Your task to perform on an android device: add a contact Image 0: 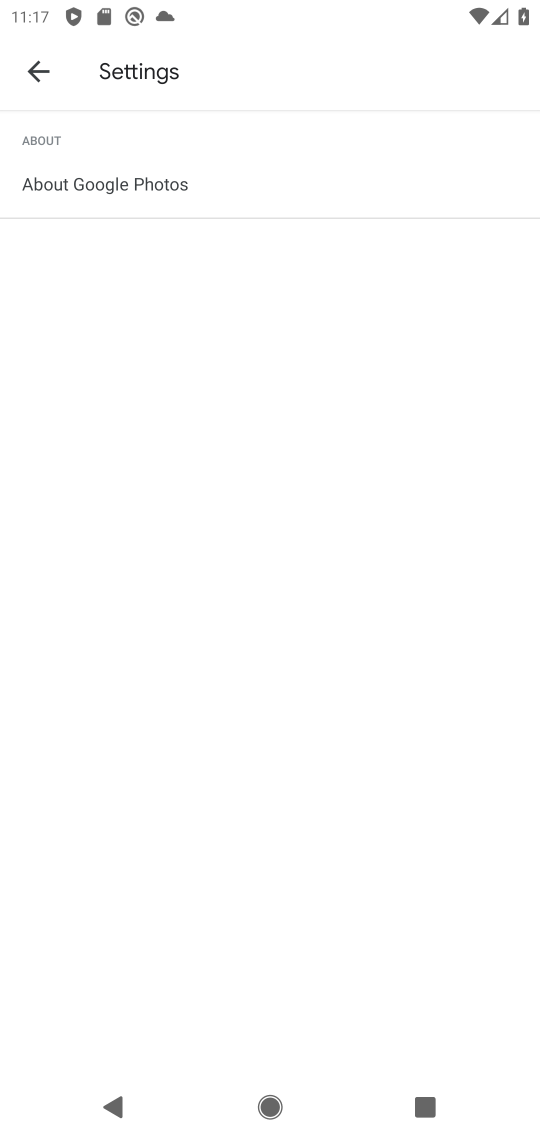
Step 0: press home button
Your task to perform on an android device: add a contact Image 1: 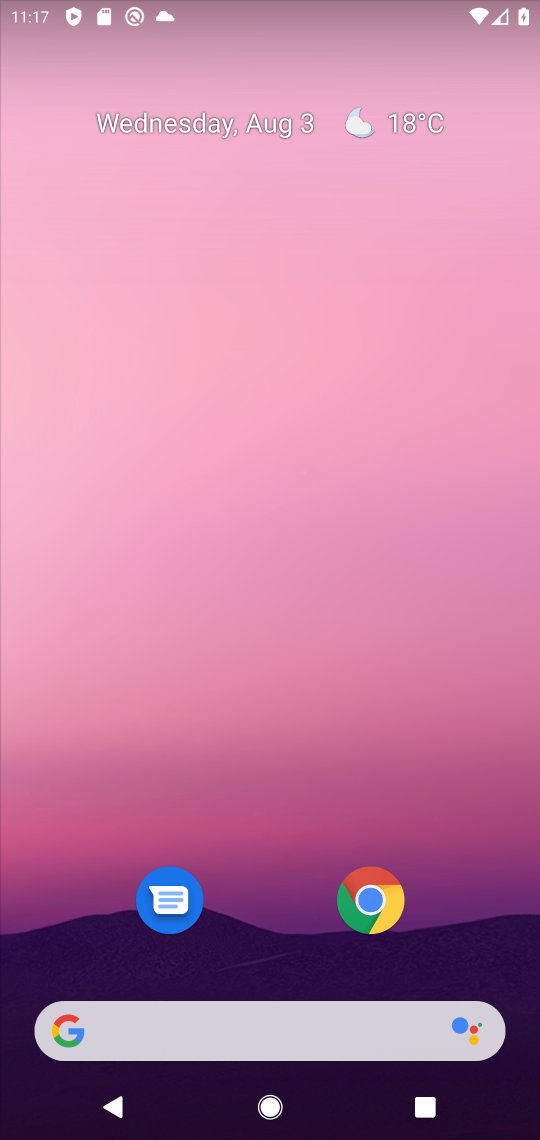
Step 1: drag from (257, 876) to (339, 155)
Your task to perform on an android device: add a contact Image 2: 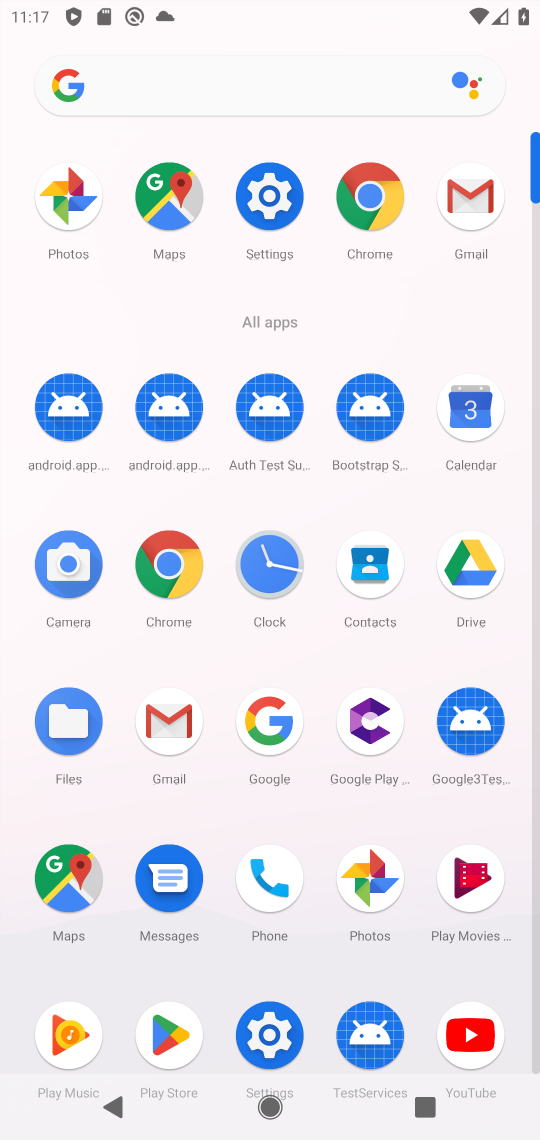
Step 2: click (368, 573)
Your task to perform on an android device: add a contact Image 3: 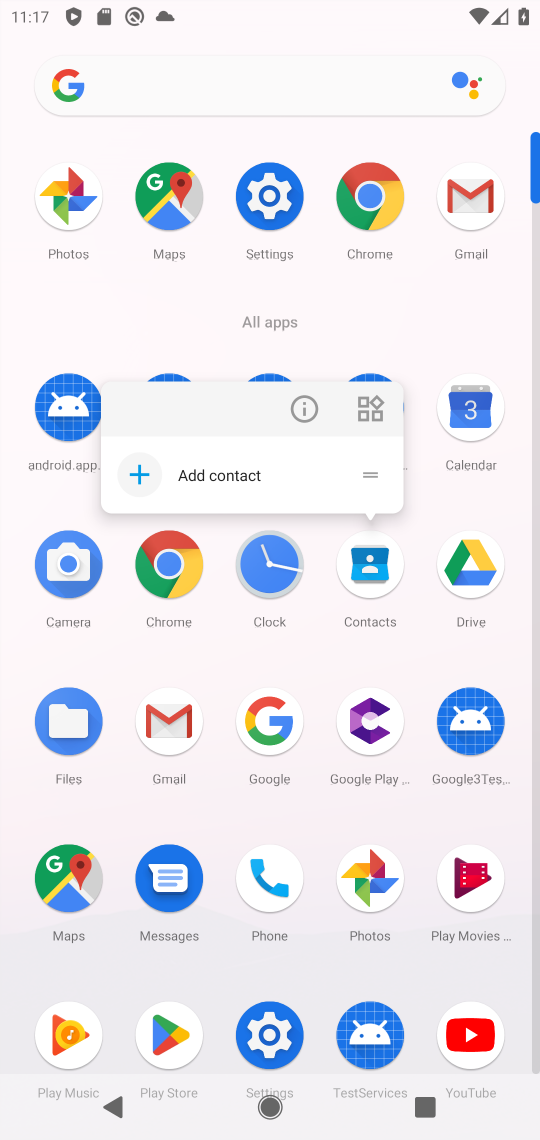
Step 3: click (138, 472)
Your task to perform on an android device: add a contact Image 4: 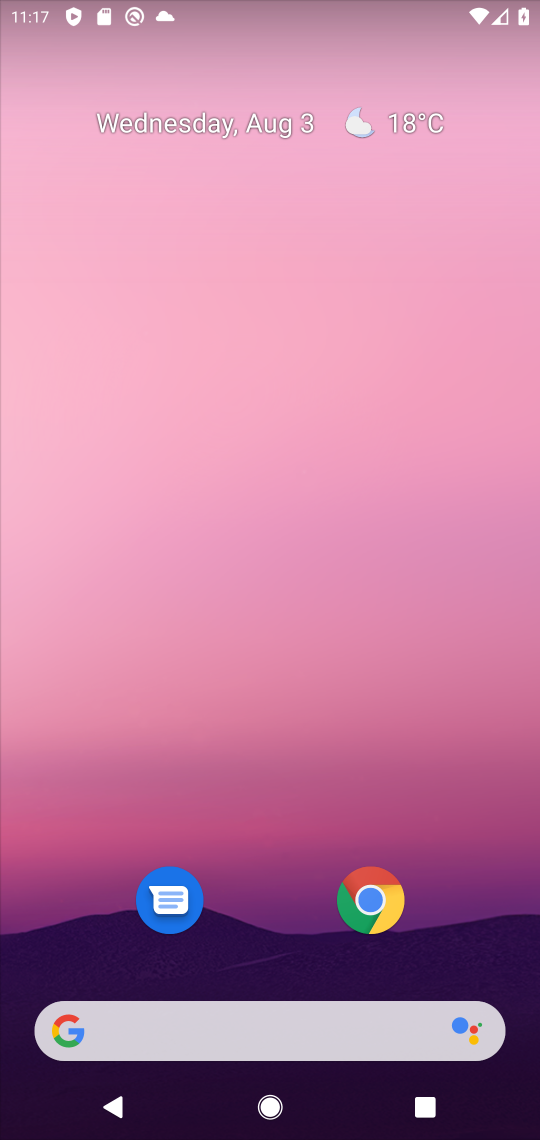
Step 4: press home button
Your task to perform on an android device: add a contact Image 5: 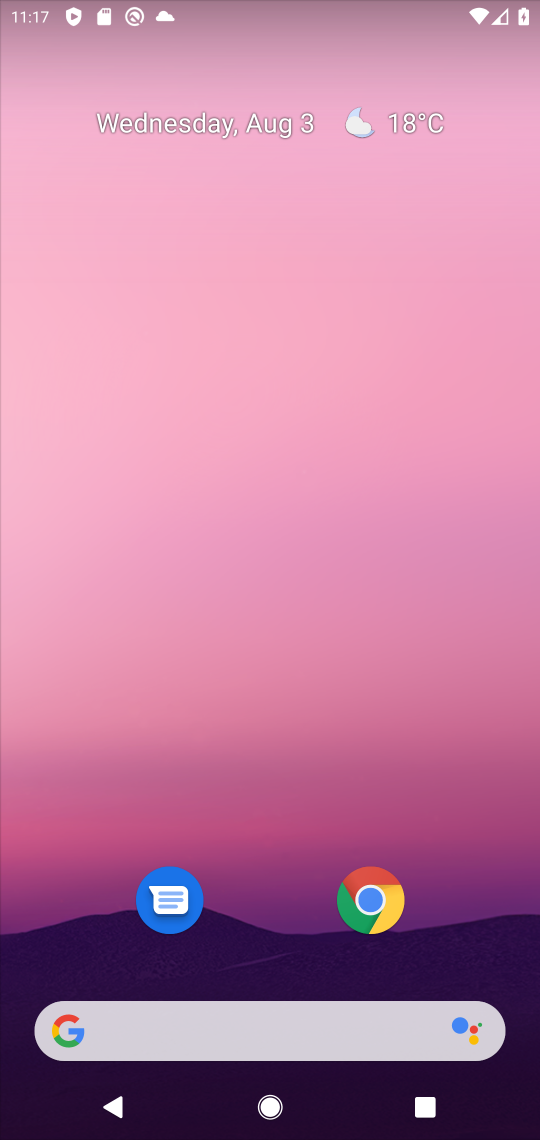
Step 5: drag from (424, 567) to (479, 33)
Your task to perform on an android device: add a contact Image 6: 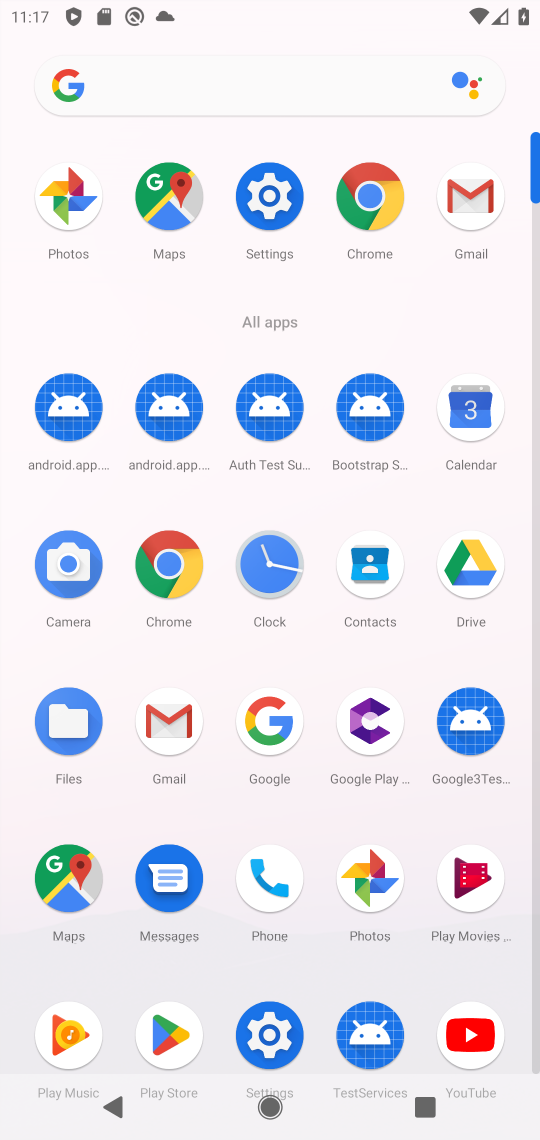
Step 6: click (363, 581)
Your task to perform on an android device: add a contact Image 7: 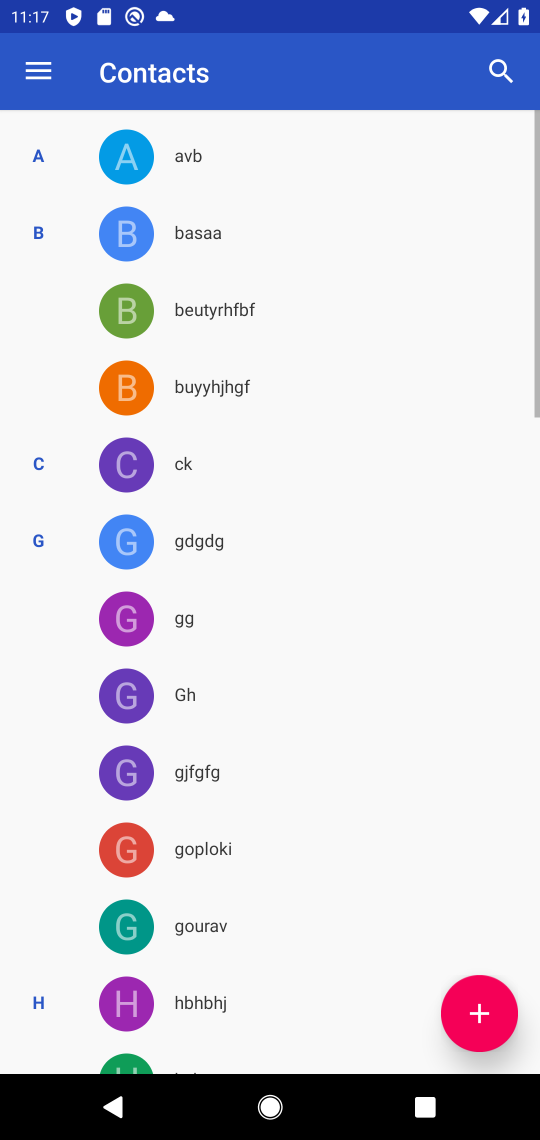
Step 7: click (498, 1023)
Your task to perform on an android device: add a contact Image 8: 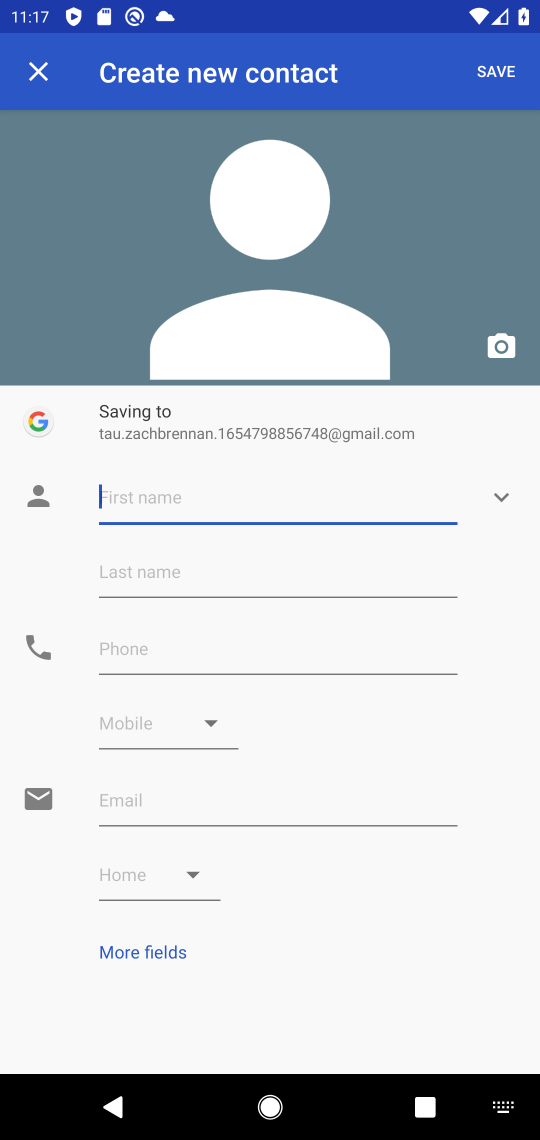
Step 8: type "dghhh"
Your task to perform on an android device: add a contact Image 9: 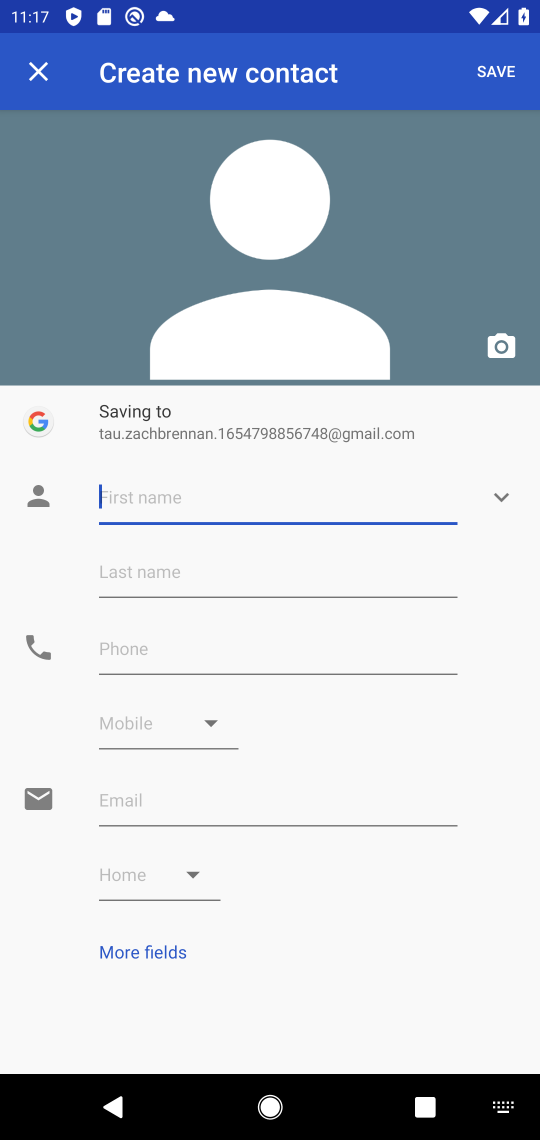
Step 9: click (219, 502)
Your task to perform on an android device: add a contact Image 10: 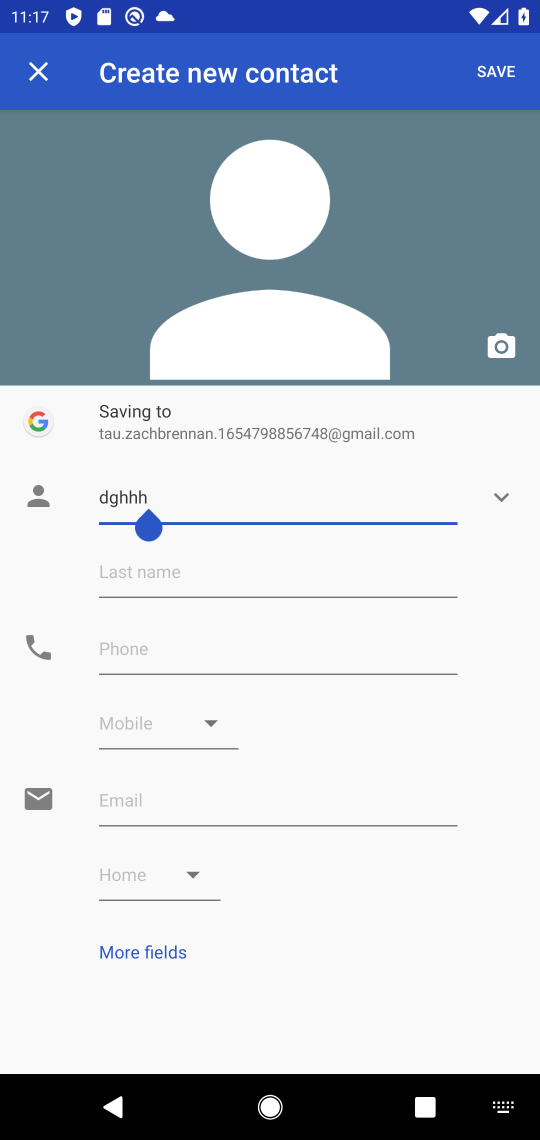
Step 10: click (200, 658)
Your task to perform on an android device: add a contact Image 11: 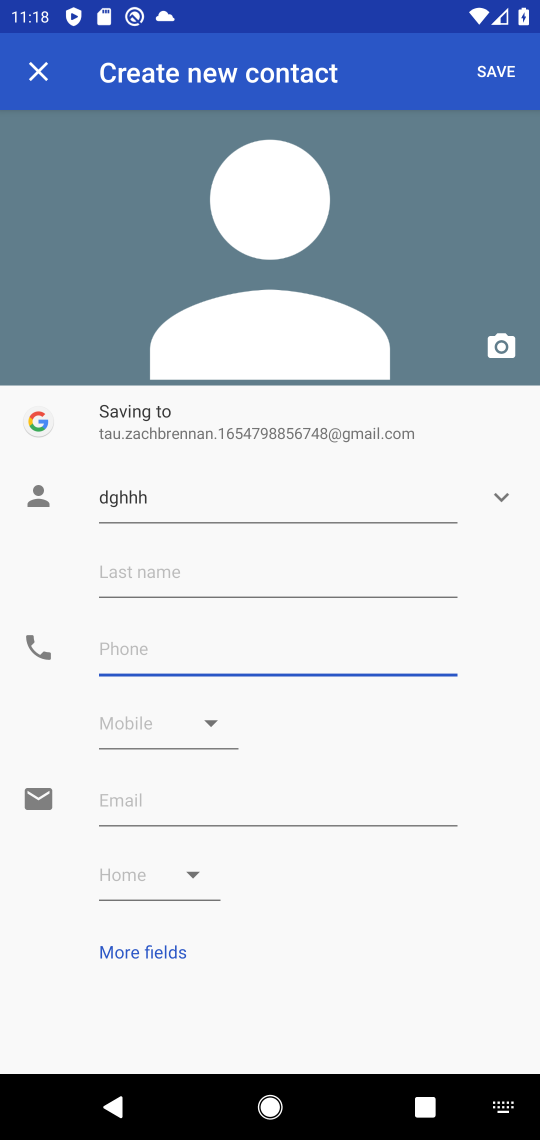
Step 11: type "3536663333333333"
Your task to perform on an android device: add a contact Image 12: 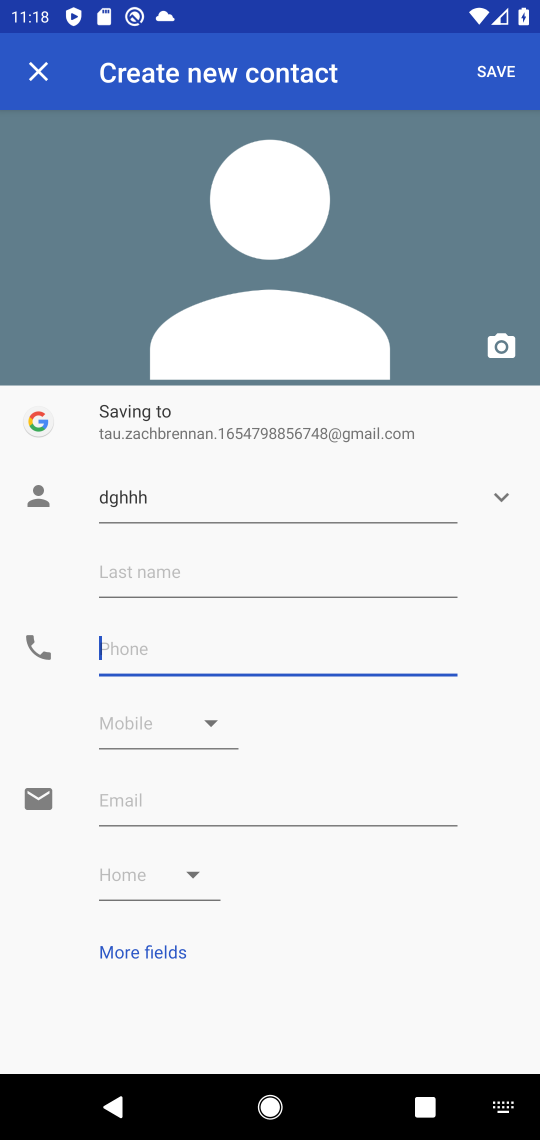
Step 12: click (234, 638)
Your task to perform on an android device: add a contact Image 13: 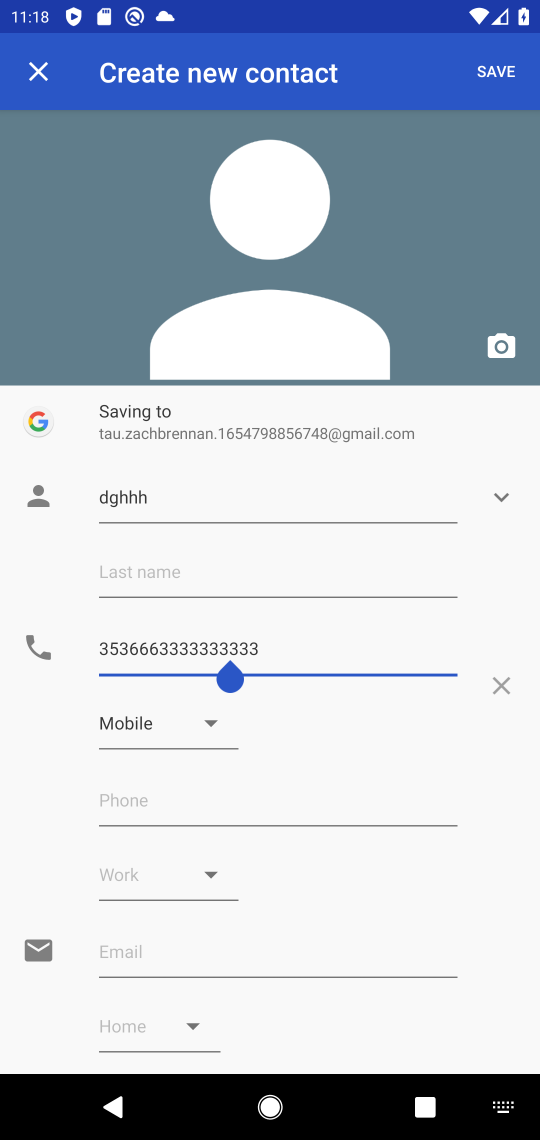
Step 13: click (475, 74)
Your task to perform on an android device: add a contact Image 14: 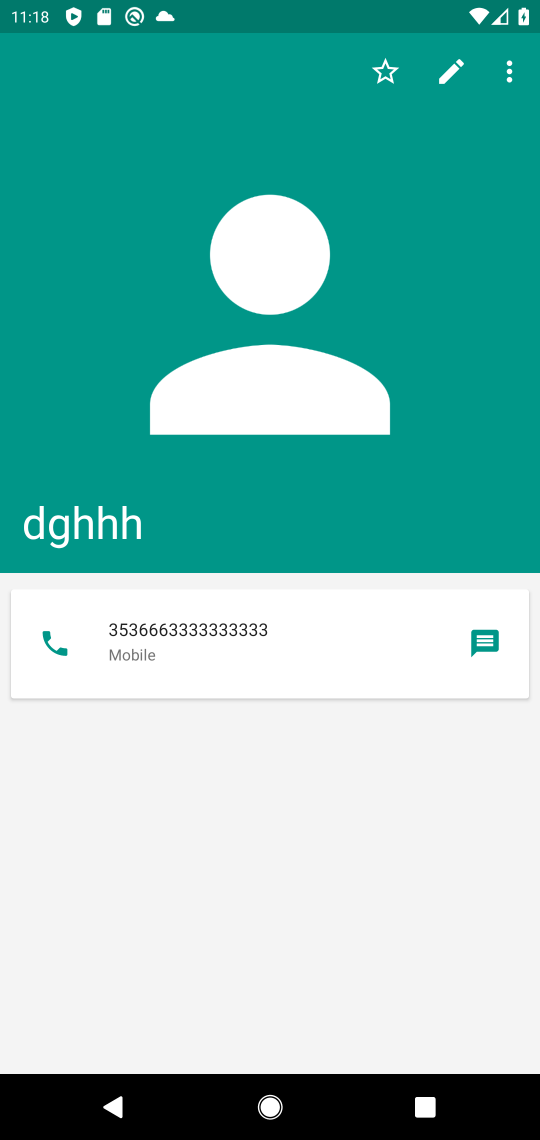
Step 14: task complete